Your task to perform on an android device: all mails in gmail Image 0: 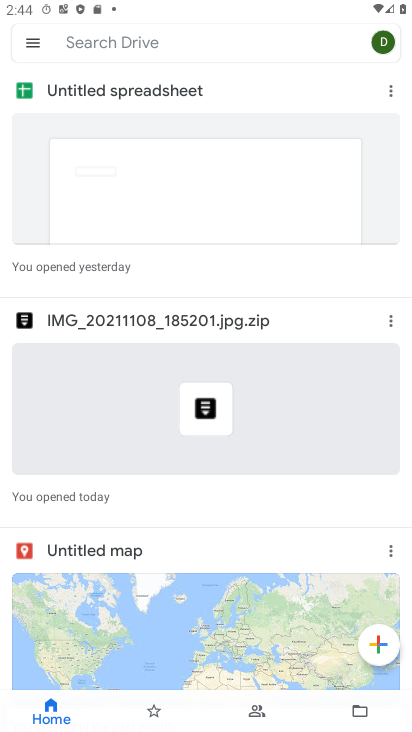
Step 0: press home button
Your task to perform on an android device: all mails in gmail Image 1: 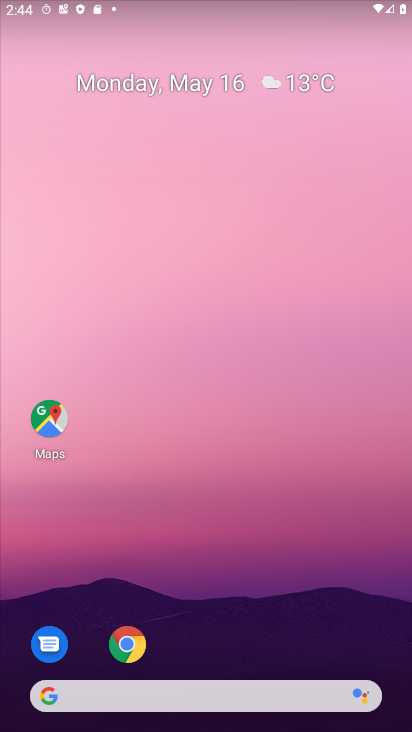
Step 1: drag from (249, 567) to (275, 92)
Your task to perform on an android device: all mails in gmail Image 2: 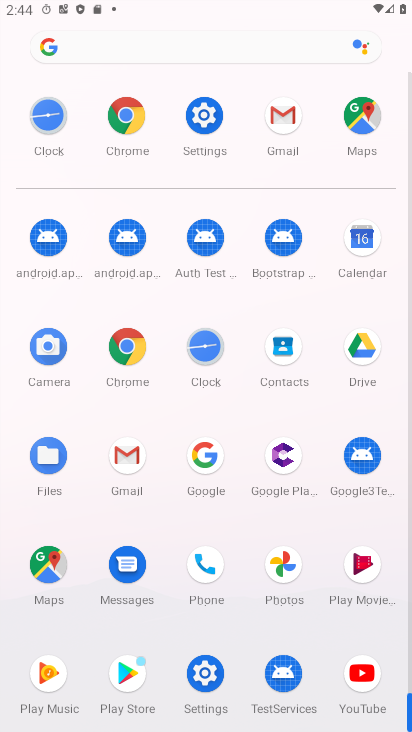
Step 2: click (134, 460)
Your task to perform on an android device: all mails in gmail Image 3: 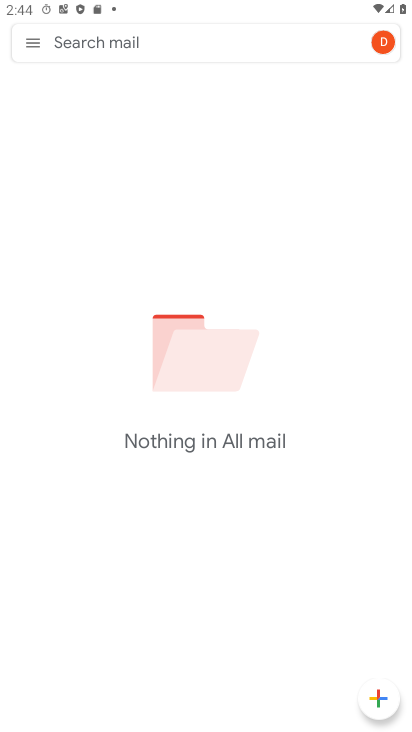
Step 3: task complete